Your task to perform on an android device: What is the recent news? Image 0: 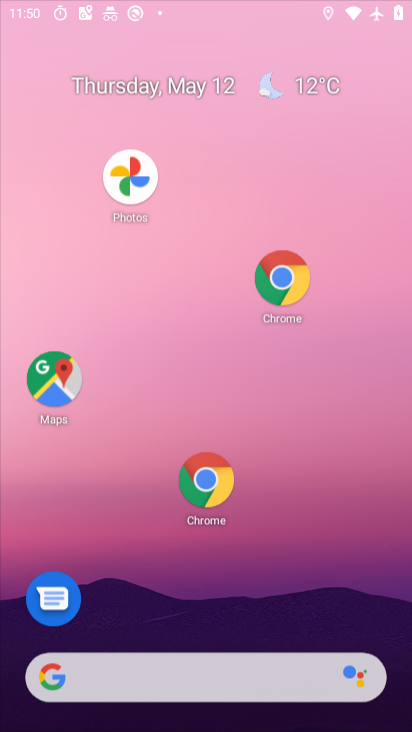
Step 0: drag from (229, 483) to (66, 106)
Your task to perform on an android device: What is the recent news? Image 1: 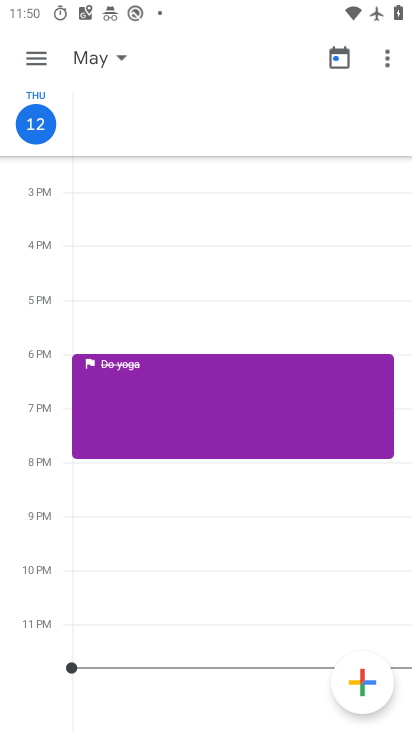
Step 1: press back button
Your task to perform on an android device: What is the recent news? Image 2: 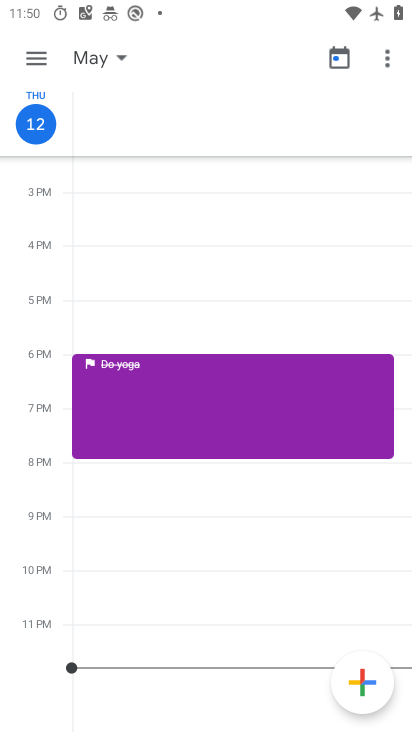
Step 2: press back button
Your task to perform on an android device: What is the recent news? Image 3: 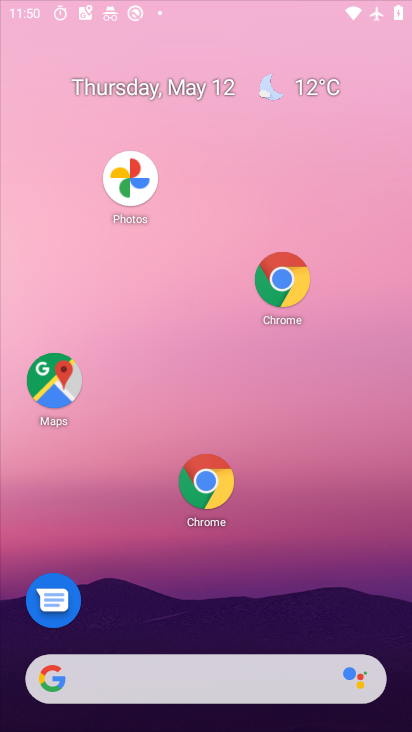
Step 3: press back button
Your task to perform on an android device: What is the recent news? Image 4: 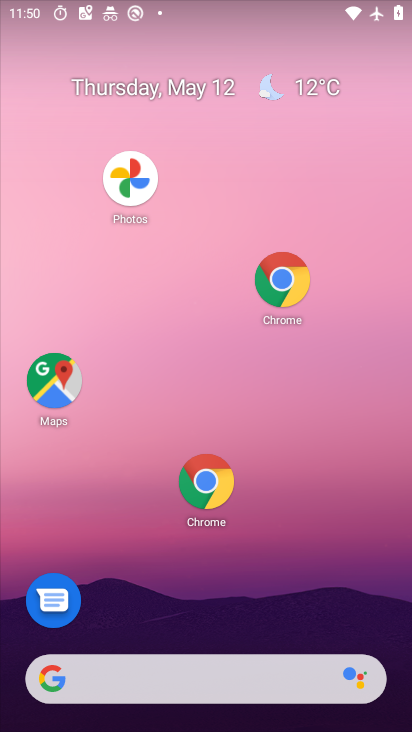
Step 4: drag from (277, 490) to (62, 22)
Your task to perform on an android device: What is the recent news? Image 5: 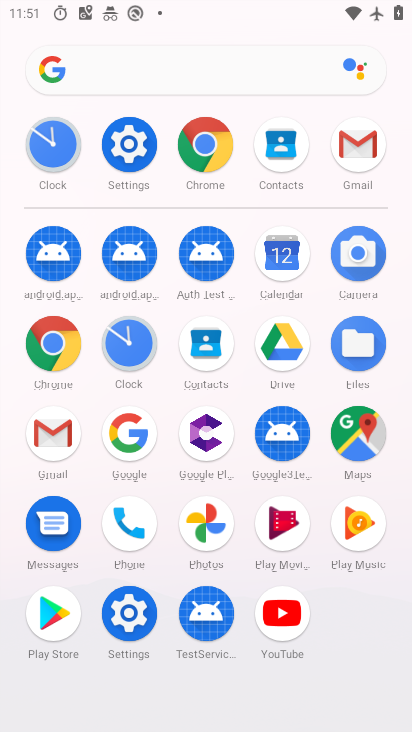
Step 5: press back button
Your task to perform on an android device: What is the recent news? Image 6: 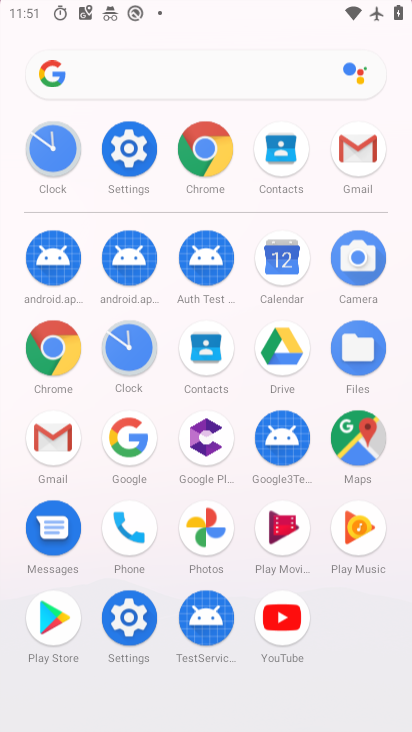
Step 6: press back button
Your task to perform on an android device: What is the recent news? Image 7: 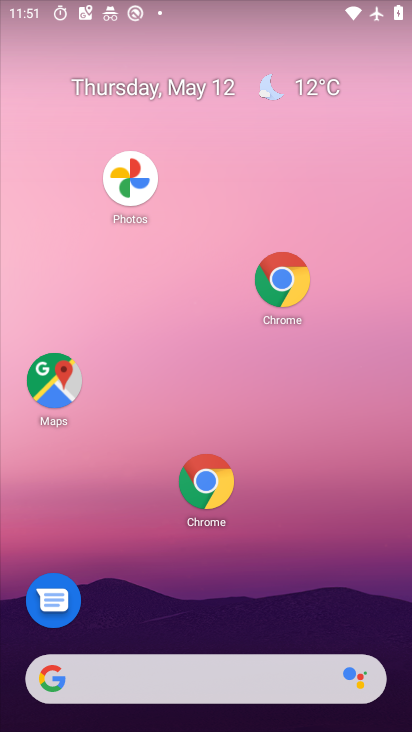
Step 7: drag from (6, 228) to (407, 384)
Your task to perform on an android device: What is the recent news? Image 8: 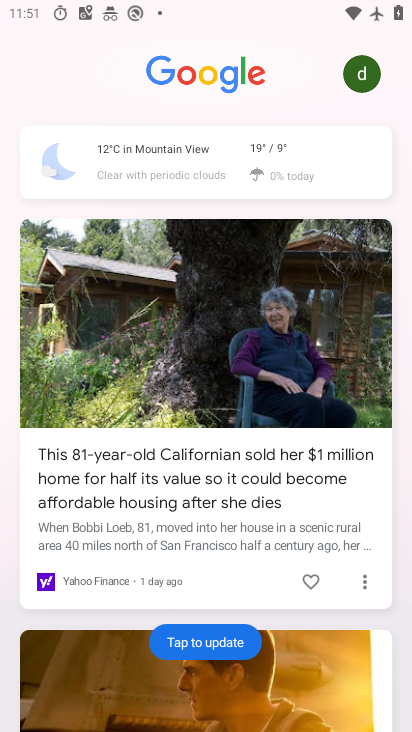
Step 8: click (152, 162)
Your task to perform on an android device: What is the recent news? Image 9: 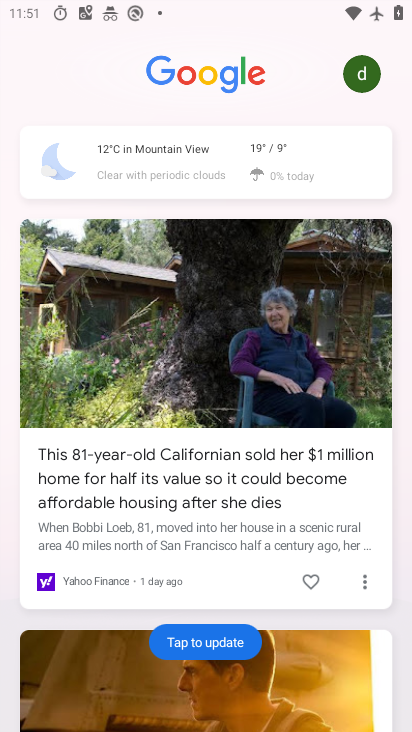
Step 9: click (152, 162)
Your task to perform on an android device: What is the recent news? Image 10: 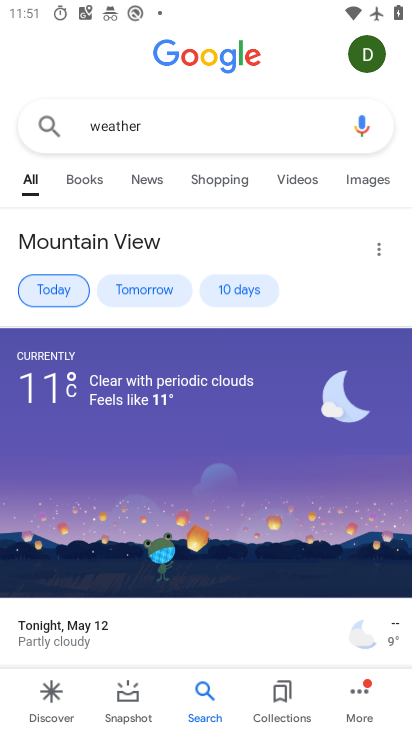
Step 10: click (146, 296)
Your task to perform on an android device: What is the recent news? Image 11: 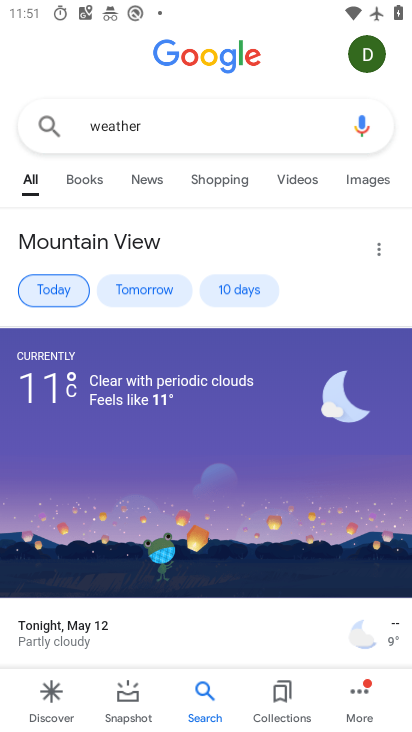
Step 11: click (145, 296)
Your task to perform on an android device: What is the recent news? Image 12: 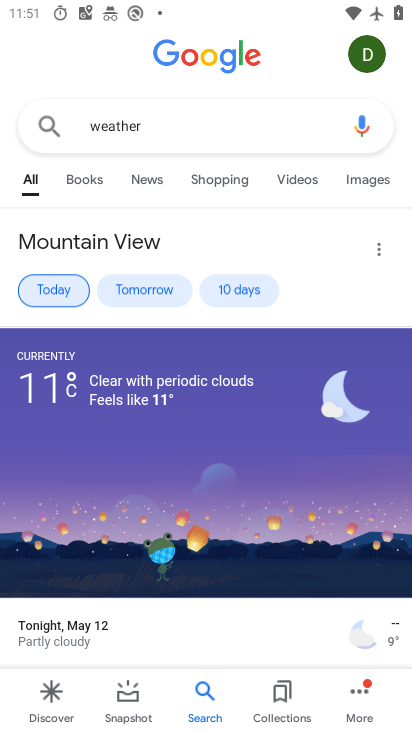
Step 12: click (145, 296)
Your task to perform on an android device: What is the recent news? Image 13: 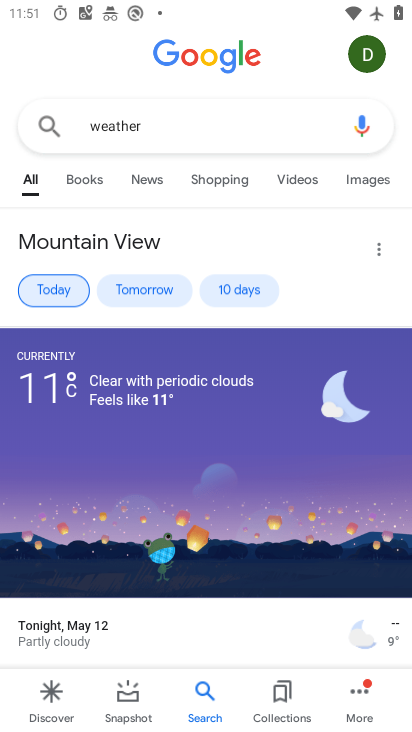
Step 13: click (145, 296)
Your task to perform on an android device: What is the recent news? Image 14: 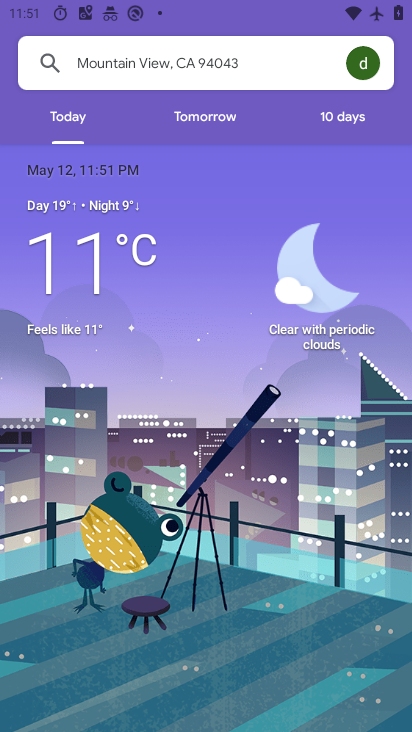
Step 14: press back button
Your task to perform on an android device: What is the recent news? Image 15: 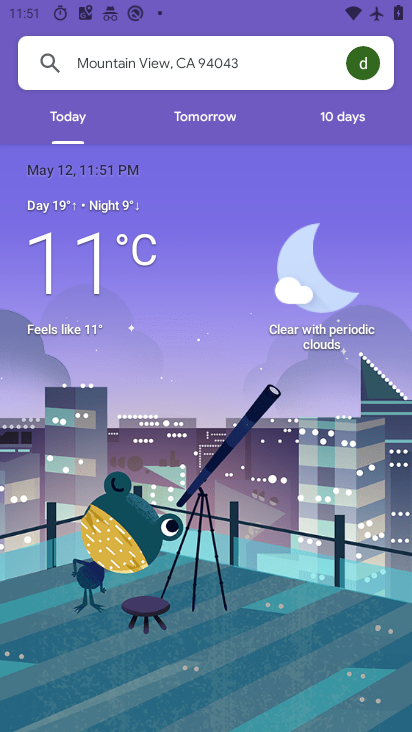
Step 15: press back button
Your task to perform on an android device: What is the recent news? Image 16: 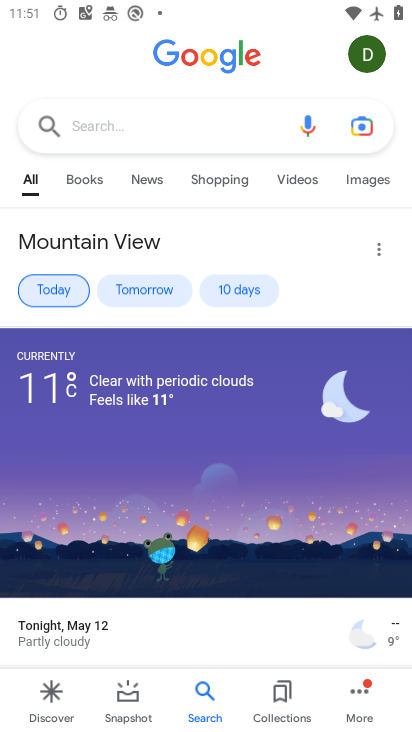
Step 16: press back button
Your task to perform on an android device: What is the recent news? Image 17: 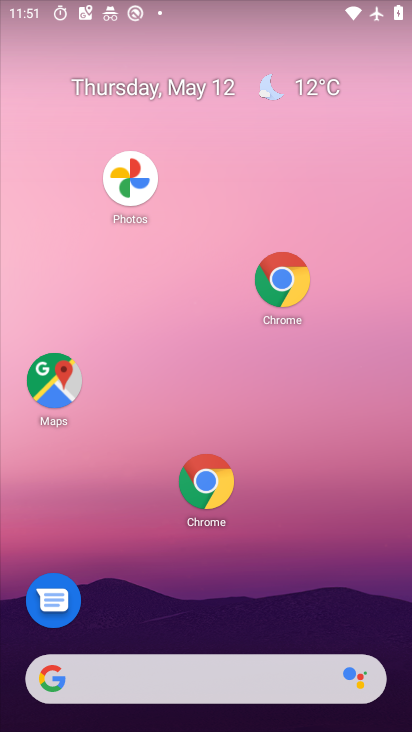
Step 17: drag from (219, 474) to (100, 85)
Your task to perform on an android device: What is the recent news? Image 18: 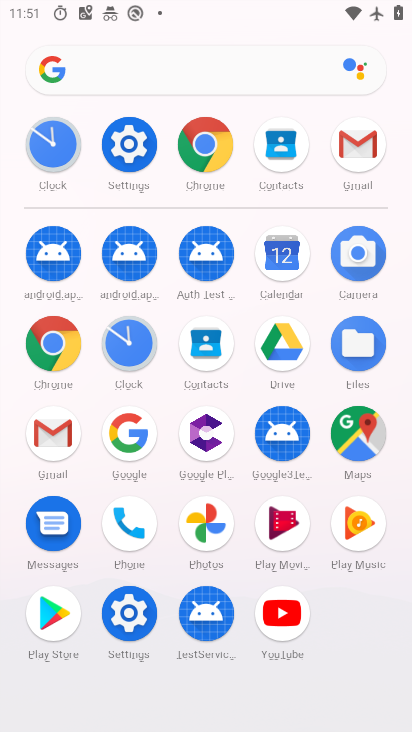
Step 18: press back button
Your task to perform on an android device: What is the recent news? Image 19: 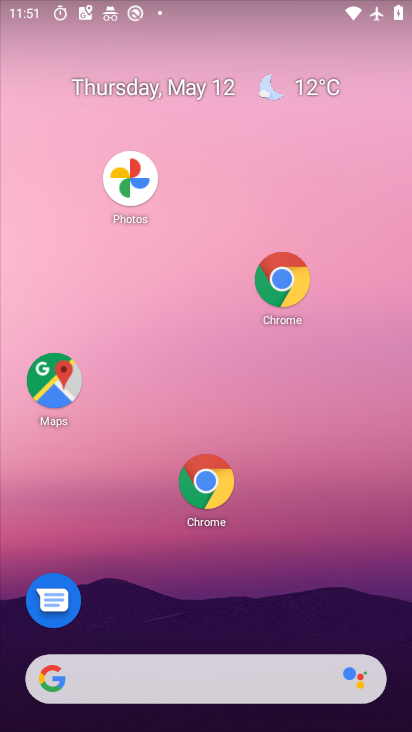
Step 19: drag from (113, 220) to (393, 409)
Your task to perform on an android device: What is the recent news? Image 20: 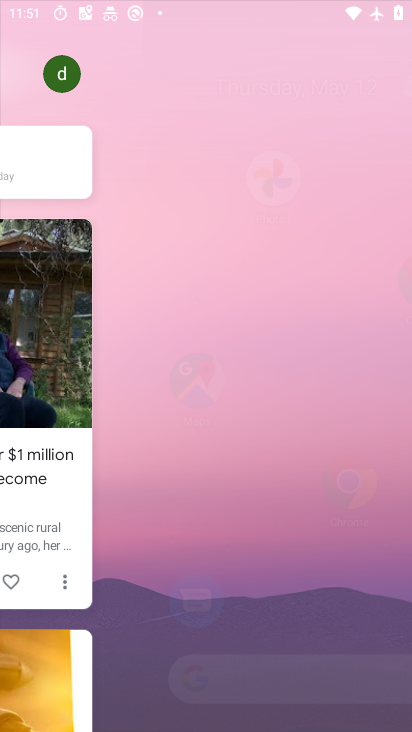
Step 20: drag from (101, 267) to (345, 414)
Your task to perform on an android device: What is the recent news? Image 21: 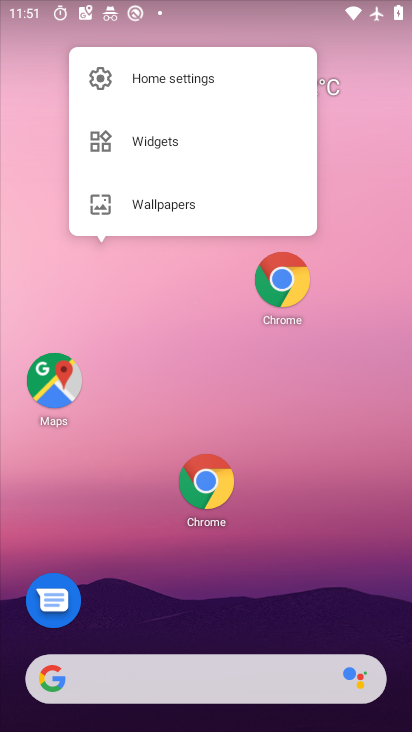
Step 21: drag from (92, 337) to (386, 401)
Your task to perform on an android device: What is the recent news? Image 22: 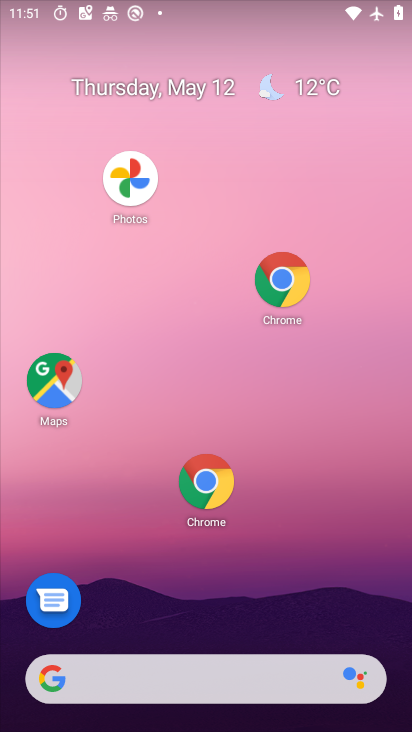
Step 22: drag from (48, 234) to (407, 347)
Your task to perform on an android device: What is the recent news? Image 23: 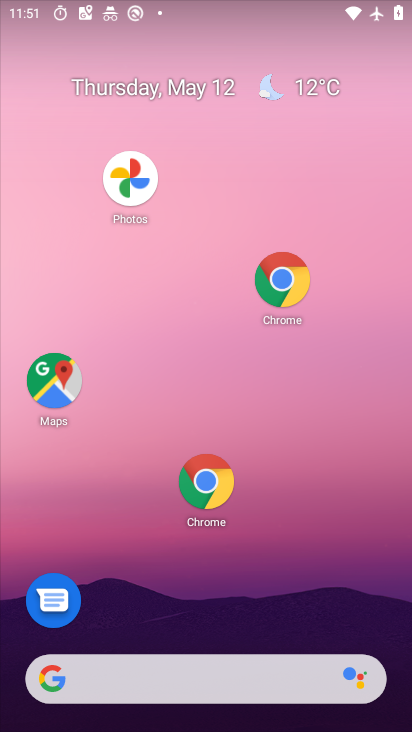
Step 23: drag from (41, 222) to (238, 303)
Your task to perform on an android device: What is the recent news? Image 24: 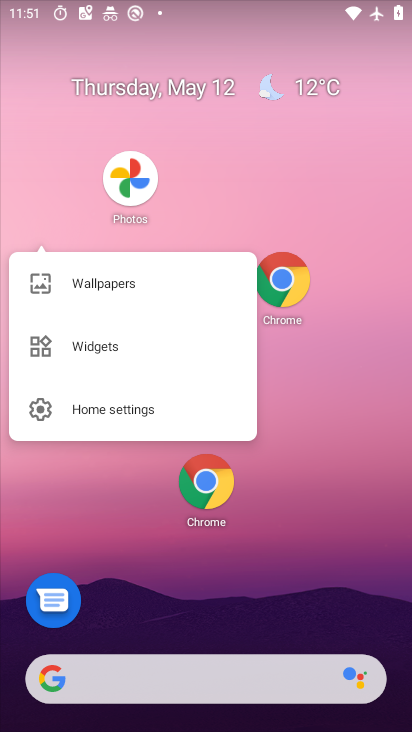
Step 24: drag from (24, 234) to (352, 416)
Your task to perform on an android device: What is the recent news? Image 25: 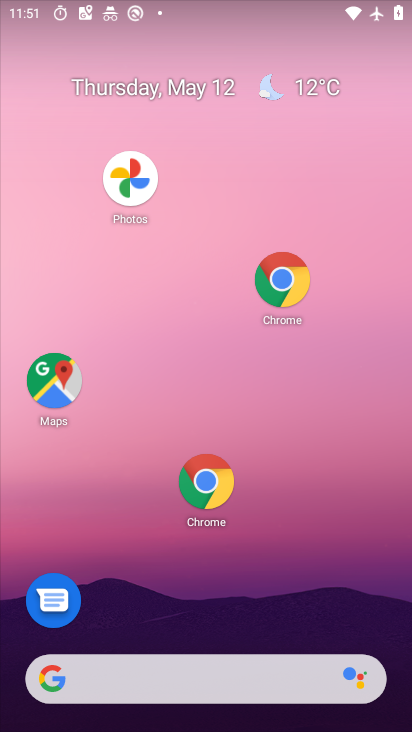
Step 25: drag from (114, 269) to (376, 379)
Your task to perform on an android device: What is the recent news? Image 26: 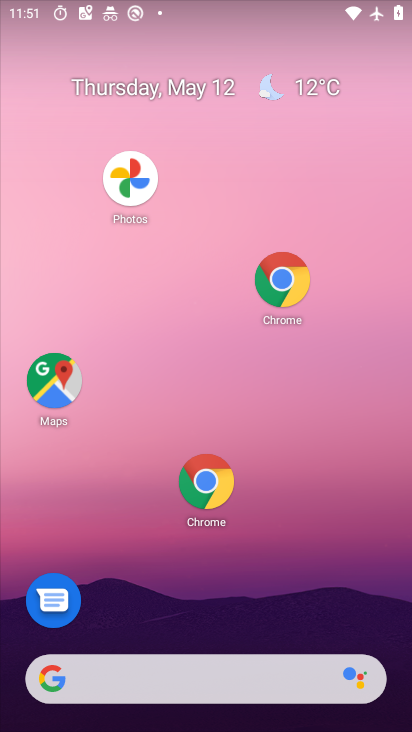
Step 26: drag from (24, 210) to (390, 409)
Your task to perform on an android device: What is the recent news? Image 27: 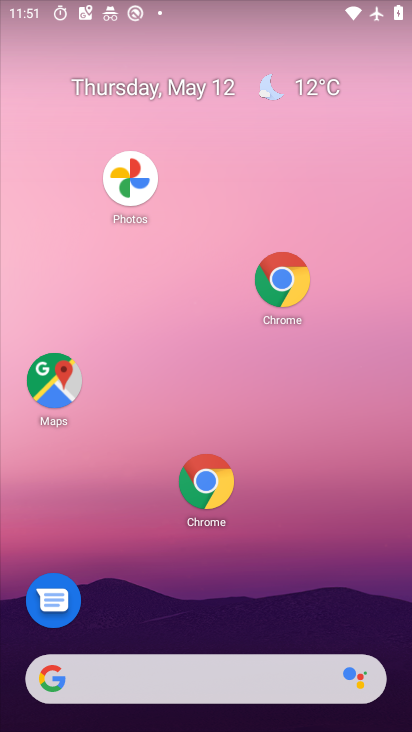
Step 27: drag from (81, 254) to (312, 381)
Your task to perform on an android device: What is the recent news? Image 28: 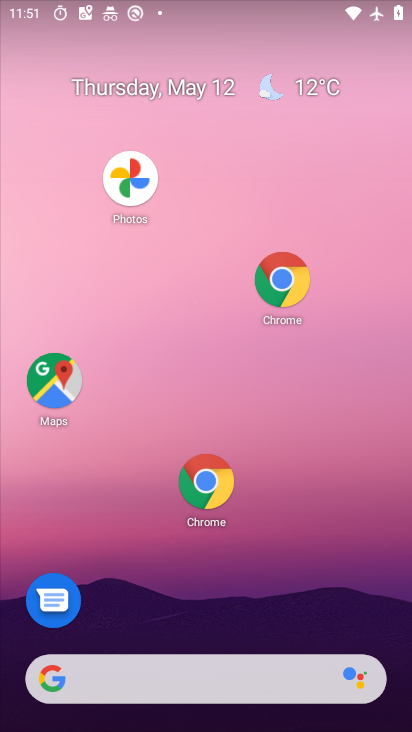
Step 28: drag from (53, 268) to (283, 312)
Your task to perform on an android device: What is the recent news? Image 29: 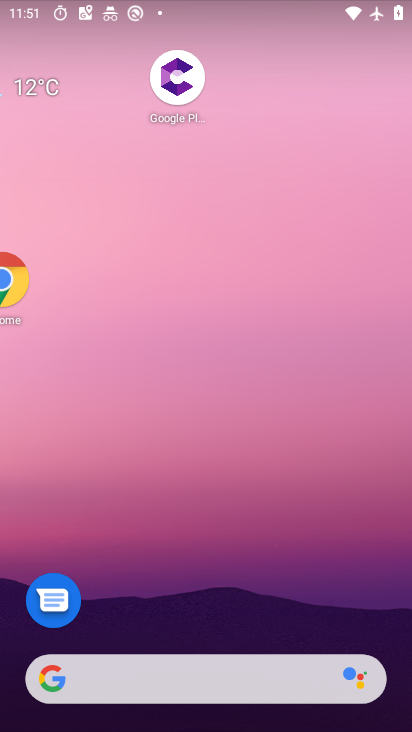
Step 29: drag from (95, 199) to (395, 420)
Your task to perform on an android device: What is the recent news? Image 30: 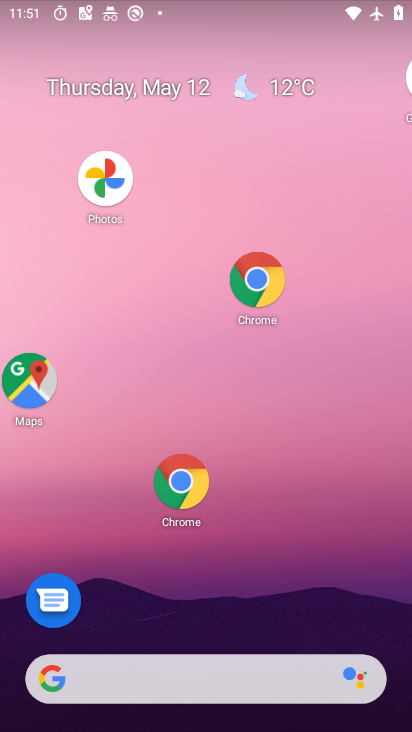
Step 30: drag from (46, 295) to (343, 335)
Your task to perform on an android device: What is the recent news? Image 31: 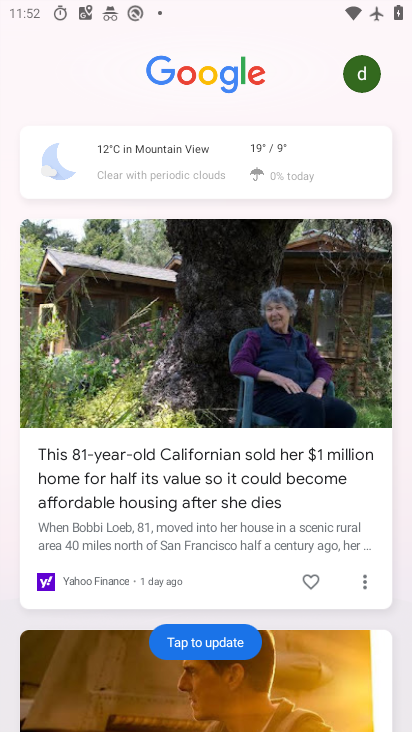
Step 31: click (155, 171)
Your task to perform on an android device: What is the recent news? Image 32: 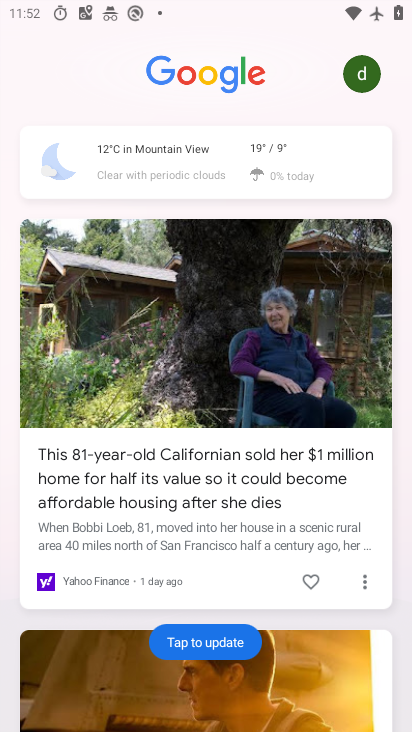
Step 32: click (156, 171)
Your task to perform on an android device: What is the recent news? Image 33: 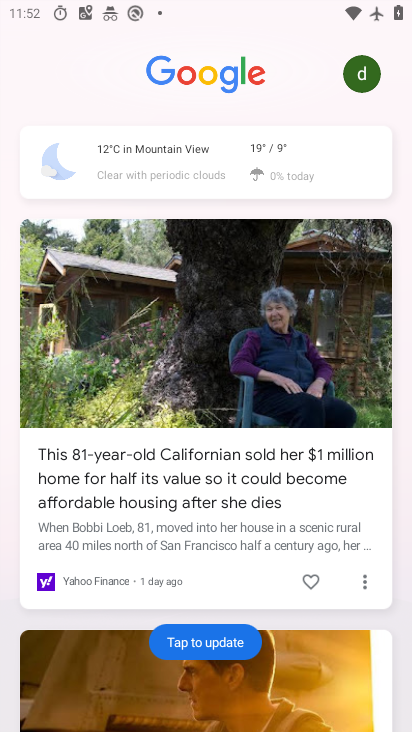
Step 33: click (156, 171)
Your task to perform on an android device: What is the recent news? Image 34: 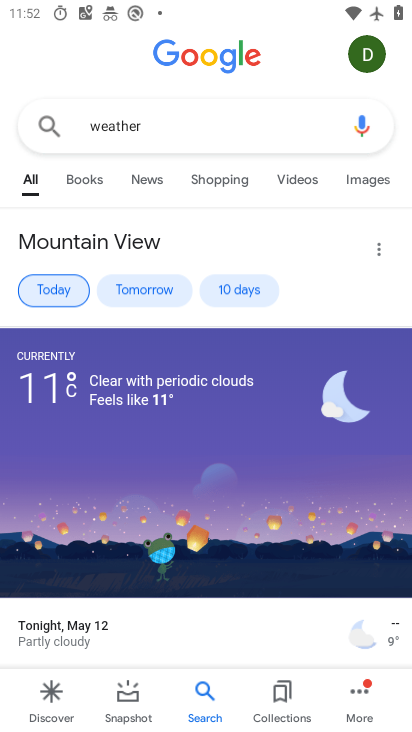
Step 34: task complete